Your task to perform on an android device: snooze an email in the gmail app Image 0: 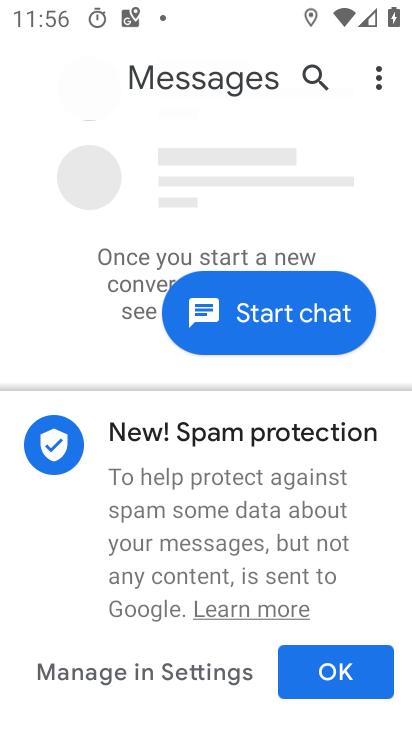
Step 0: press home button
Your task to perform on an android device: snooze an email in the gmail app Image 1: 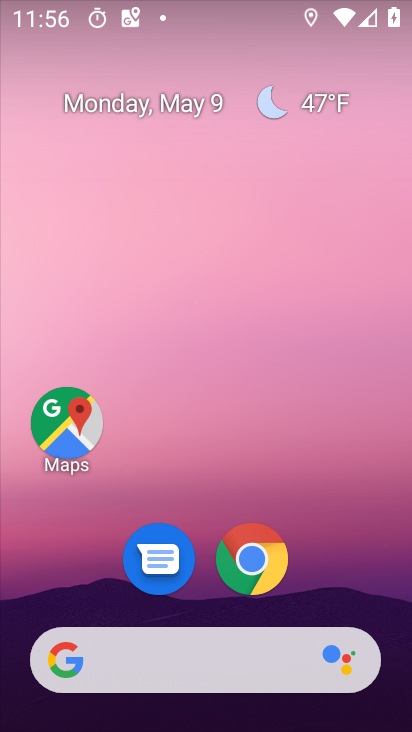
Step 1: drag from (322, 573) to (349, 4)
Your task to perform on an android device: snooze an email in the gmail app Image 2: 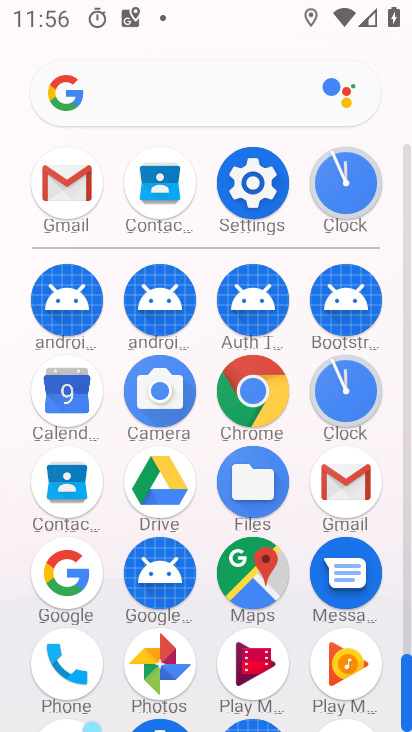
Step 2: click (352, 487)
Your task to perform on an android device: snooze an email in the gmail app Image 3: 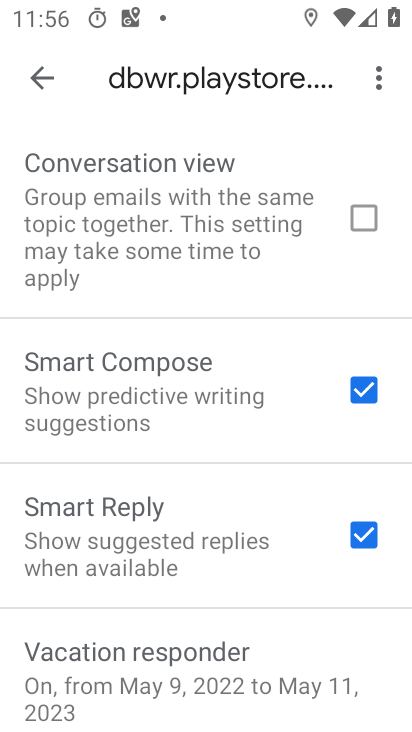
Step 3: click (58, 78)
Your task to perform on an android device: snooze an email in the gmail app Image 4: 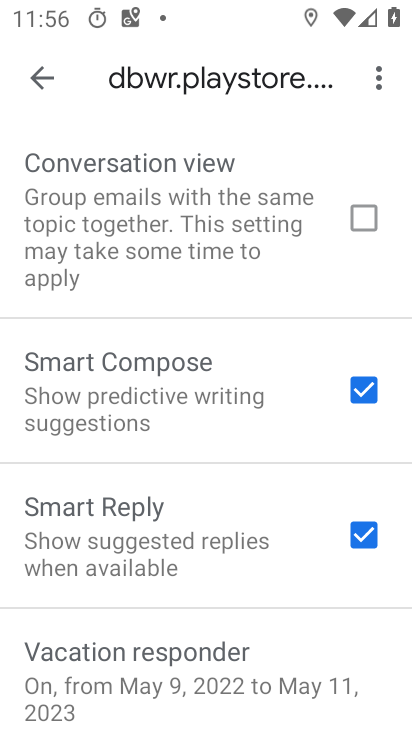
Step 4: click (58, 78)
Your task to perform on an android device: snooze an email in the gmail app Image 5: 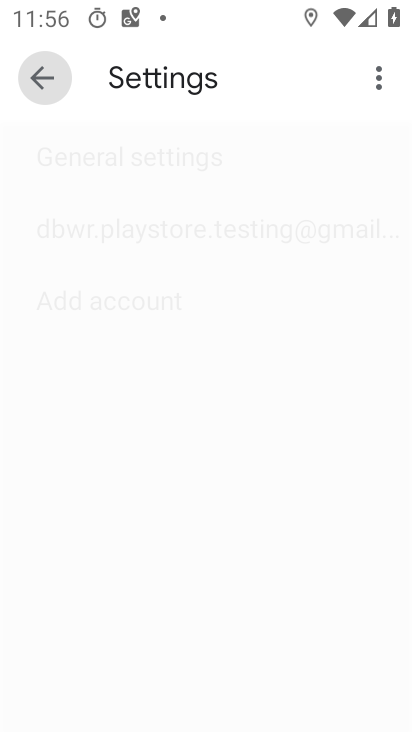
Step 5: click (58, 78)
Your task to perform on an android device: snooze an email in the gmail app Image 6: 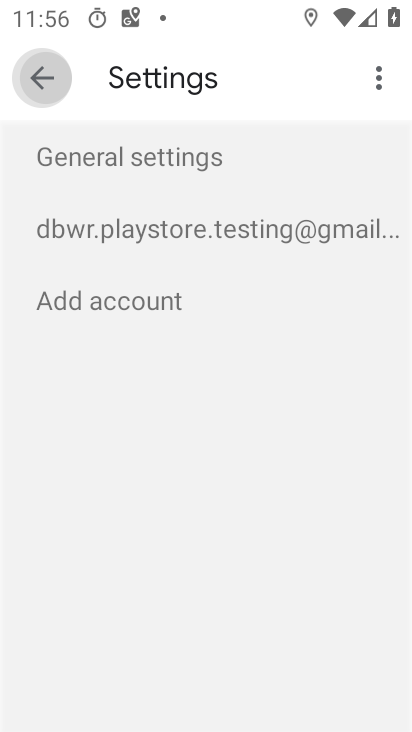
Step 6: click (58, 78)
Your task to perform on an android device: snooze an email in the gmail app Image 7: 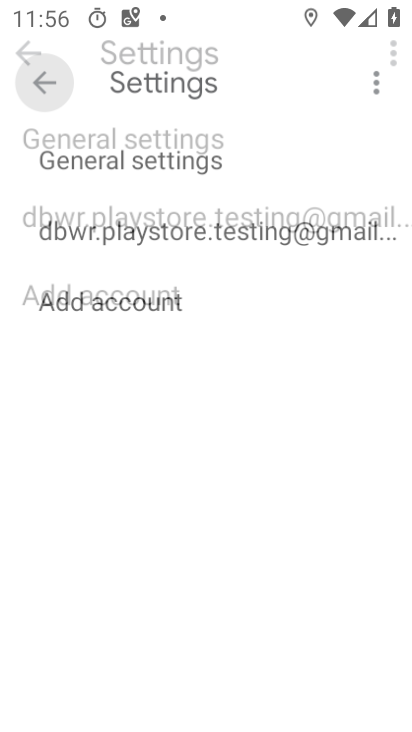
Step 7: click (58, 78)
Your task to perform on an android device: snooze an email in the gmail app Image 8: 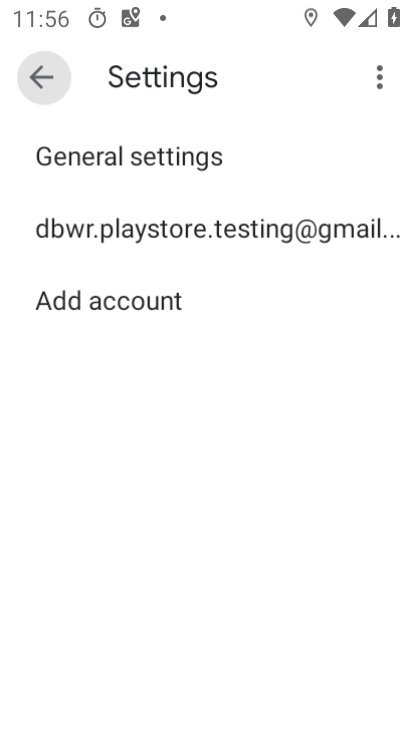
Step 8: click (58, 78)
Your task to perform on an android device: snooze an email in the gmail app Image 9: 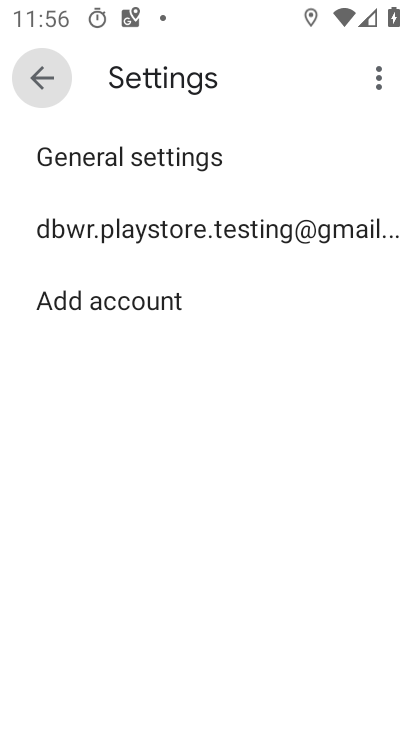
Step 9: click (58, 78)
Your task to perform on an android device: snooze an email in the gmail app Image 10: 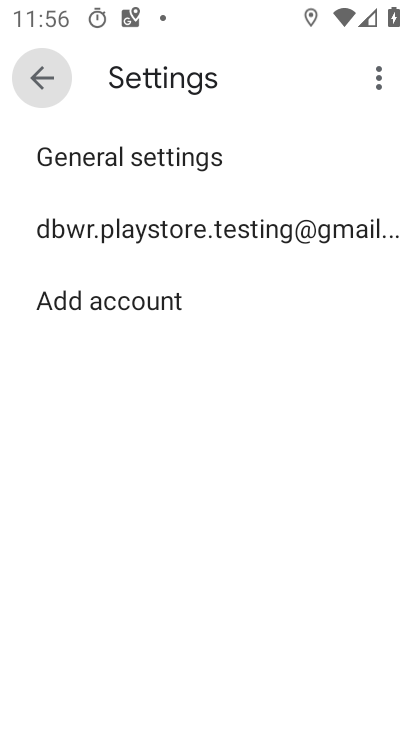
Step 10: click (58, 78)
Your task to perform on an android device: snooze an email in the gmail app Image 11: 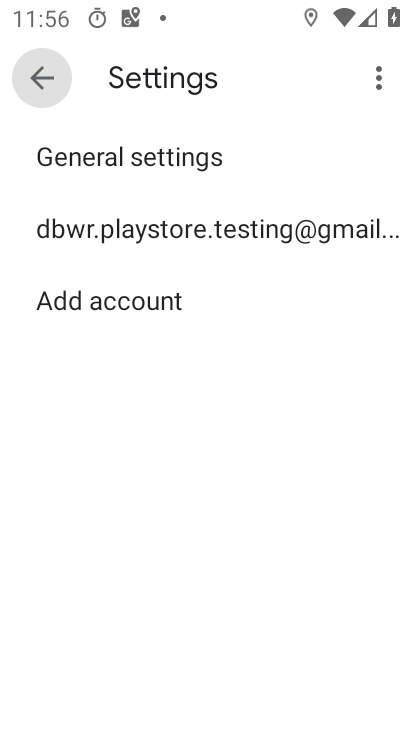
Step 11: click (58, 78)
Your task to perform on an android device: snooze an email in the gmail app Image 12: 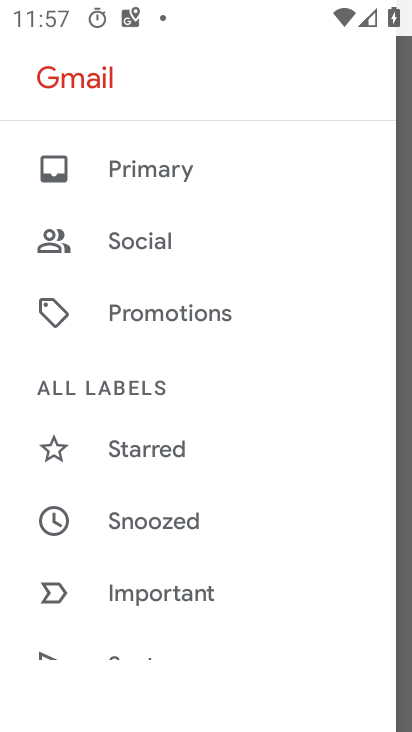
Step 12: task complete